Your task to perform on an android device: Go to display settings Image 0: 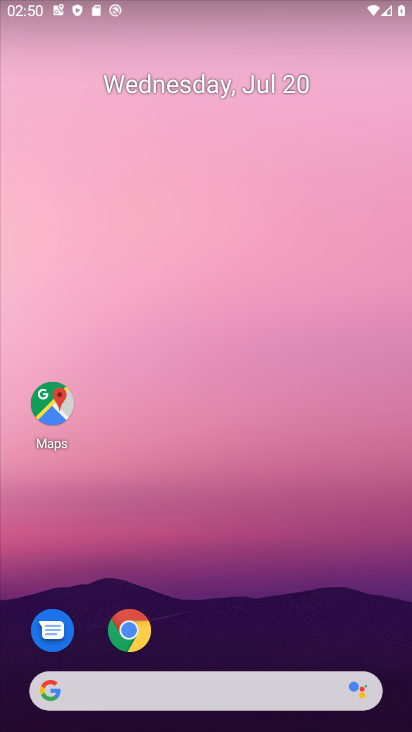
Step 0: drag from (344, 622) to (372, 172)
Your task to perform on an android device: Go to display settings Image 1: 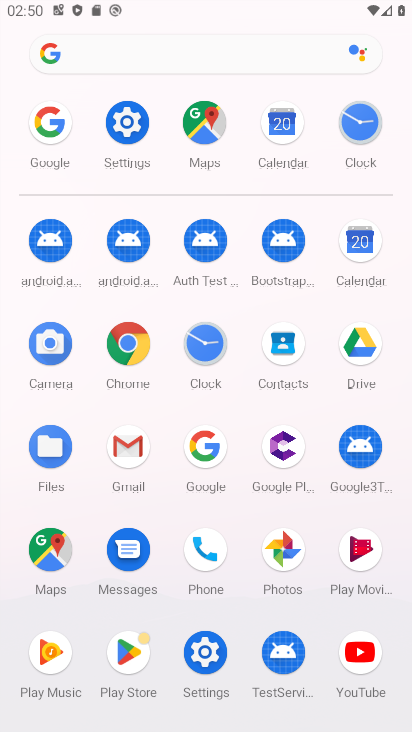
Step 1: click (128, 131)
Your task to perform on an android device: Go to display settings Image 2: 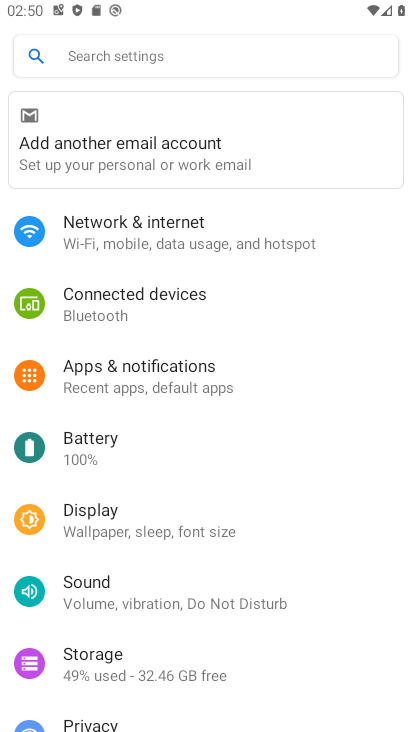
Step 2: drag from (357, 526) to (371, 445)
Your task to perform on an android device: Go to display settings Image 3: 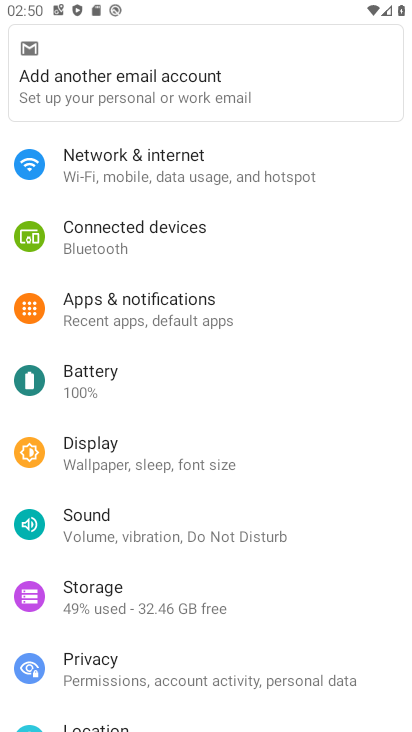
Step 3: drag from (355, 554) to (365, 378)
Your task to perform on an android device: Go to display settings Image 4: 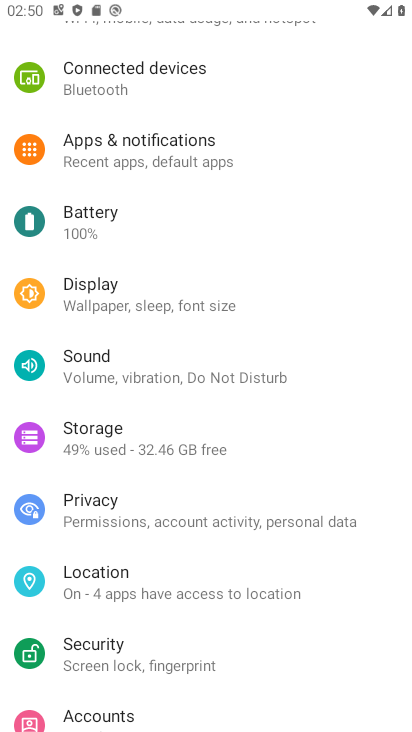
Step 4: drag from (343, 583) to (347, 473)
Your task to perform on an android device: Go to display settings Image 5: 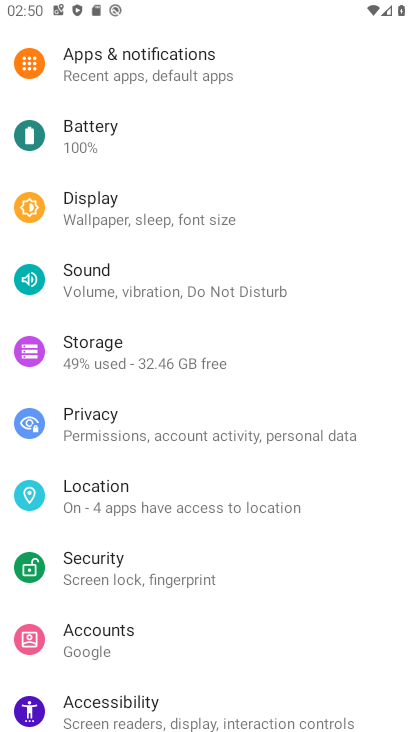
Step 5: drag from (344, 569) to (348, 473)
Your task to perform on an android device: Go to display settings Image 6: 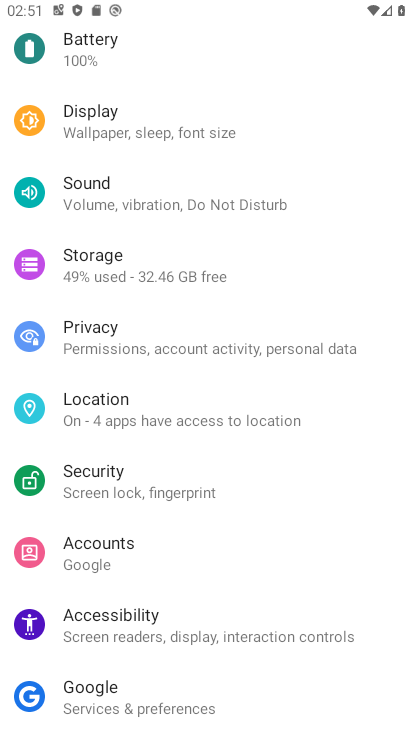
Step 6: drag from (338, 552) to (339, 438)
Your task to perform on an android device: Go to display settings Image 7: 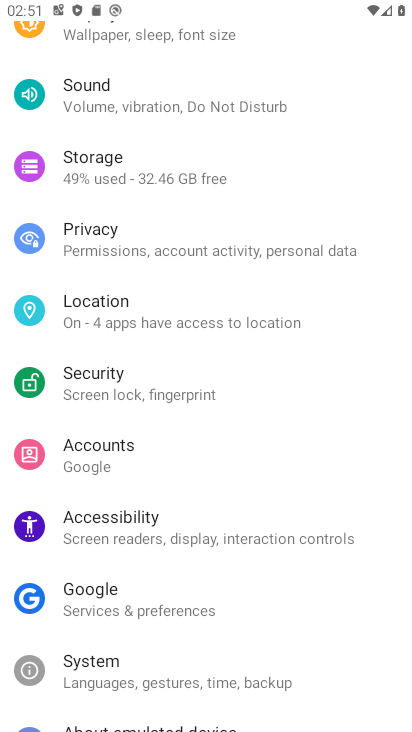
Step 7: drag from (352, 347) to (355, 453)
Your task to perform on an android device: Go to display settings Image 8: 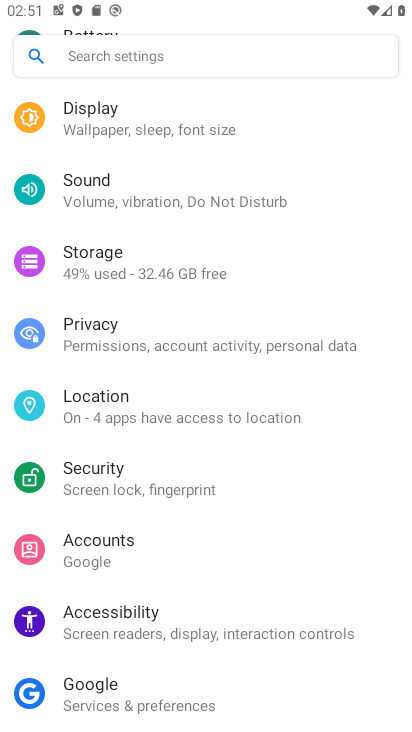
Step 8: drag from (356, 376) to (358, 461)
Your task to perform on an android device: Go to display settings Image 9: 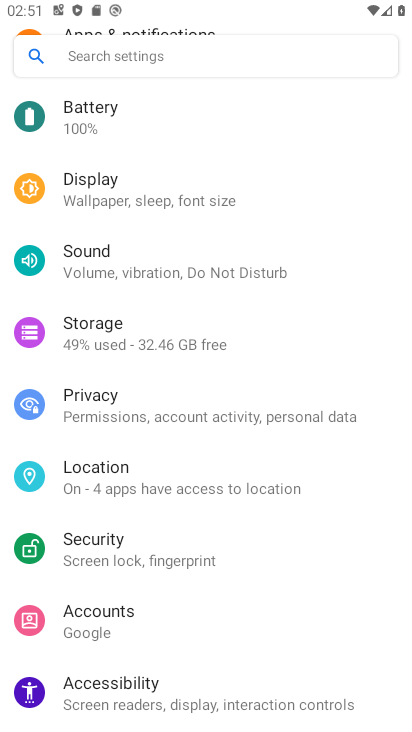
Step 9: drag from (353, 320) to (349, 430)
Your task to perform on an android device: Go to display settings Image 10: 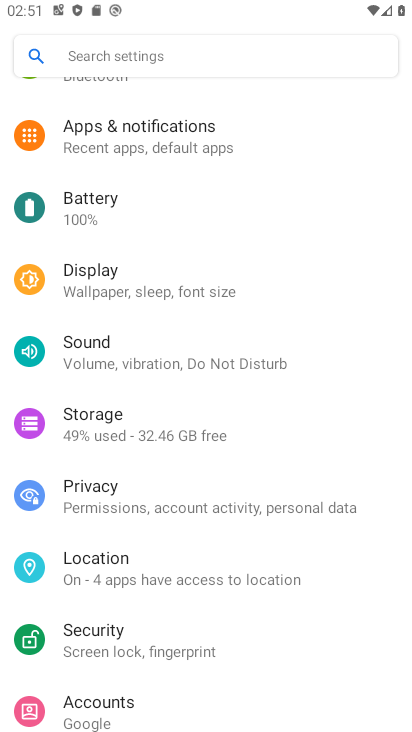
Step 10: drag from (349, 289) to (352, 478)
Your task to perform on an android device: Go to display settings Image 11: 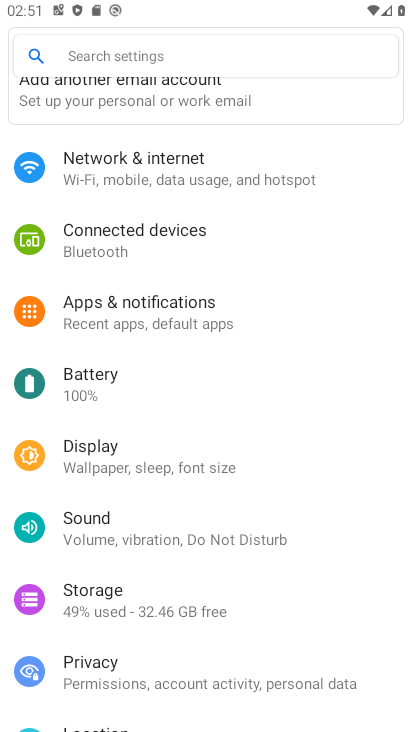
Step 11: click (281, 470)
Your task to perform on an android device: Go to display settings Image 12: 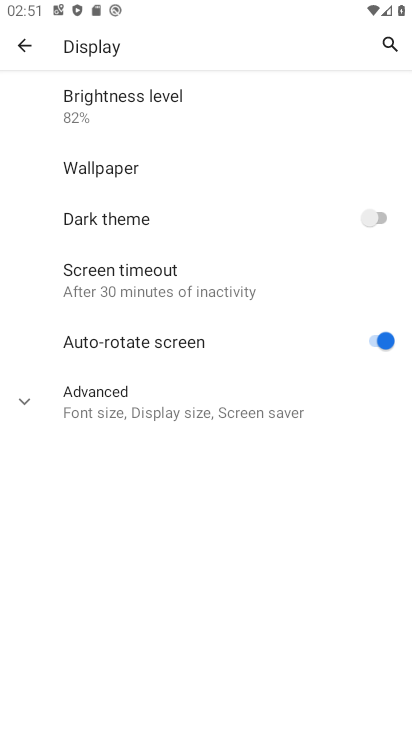
Step 12: click (271, 421)
Your task to perform on an android device: Go to display settings Image 13: 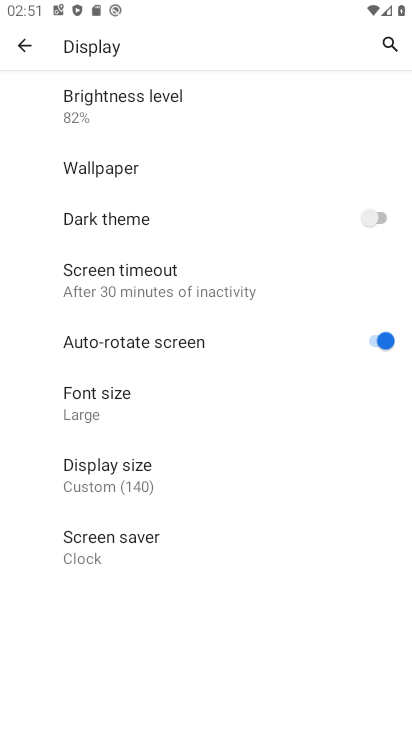
Step 13: task complete